Your task to perform on an android device: toggle sleep mode Image 0: 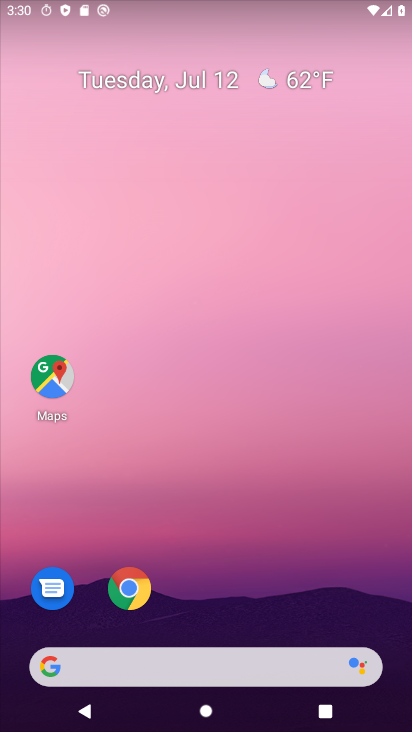
Step 0: drag from (208, 592) to (338, 4)
Your task to perform on an android device: toggle sleep mode Image 1: 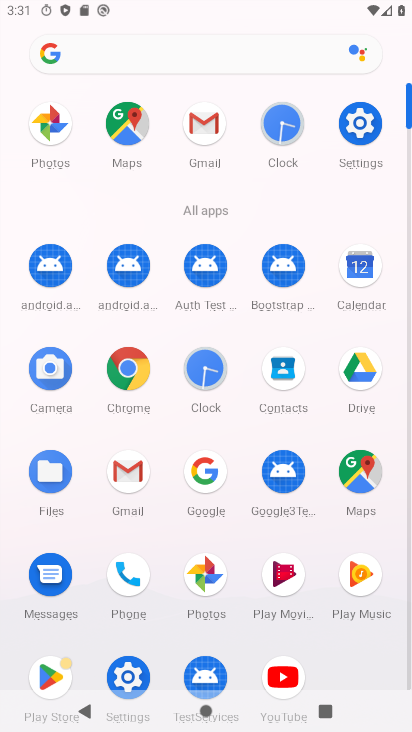
Step 1: click (366, 145)
Your task to perform on an android device: toggle sleep mode Image 2: 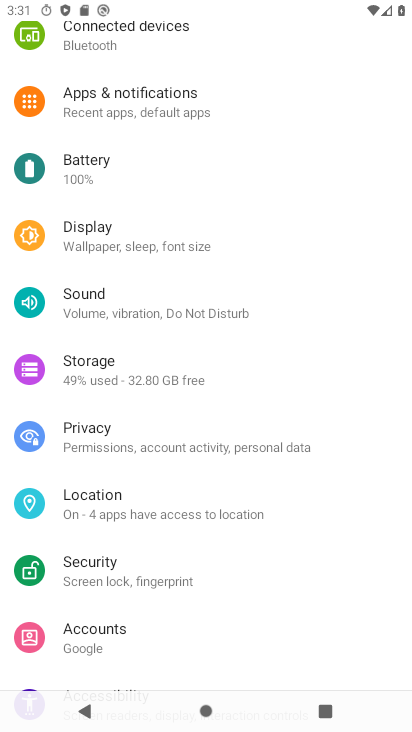
Step 2: drag from (193, 213) to (150, 628)
Your task to perform on an android device: toggle sleep mode Image 3: 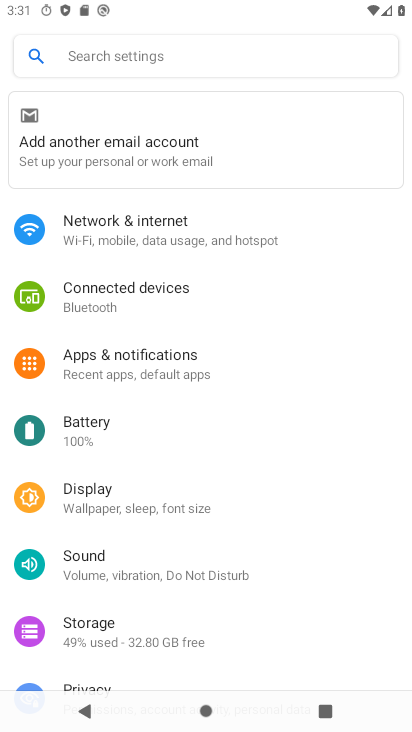
Step 3: click (212, 61)
Your task to perform on an android device: toggle sleep mode Image 4: 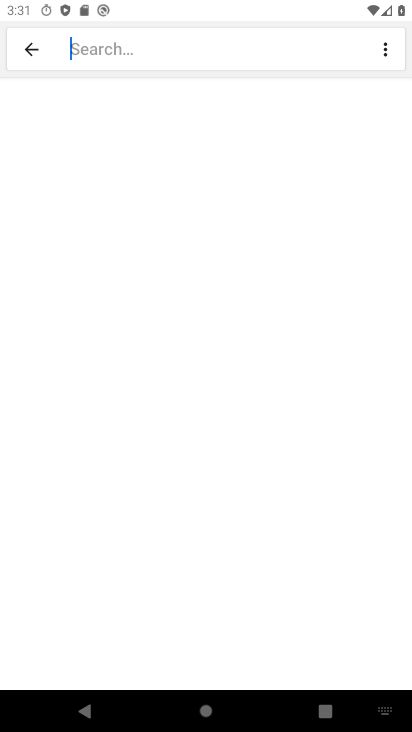
Step 4: type "sleep mode"
Your task to perform on an android device: toggle sleep mode Image 5: 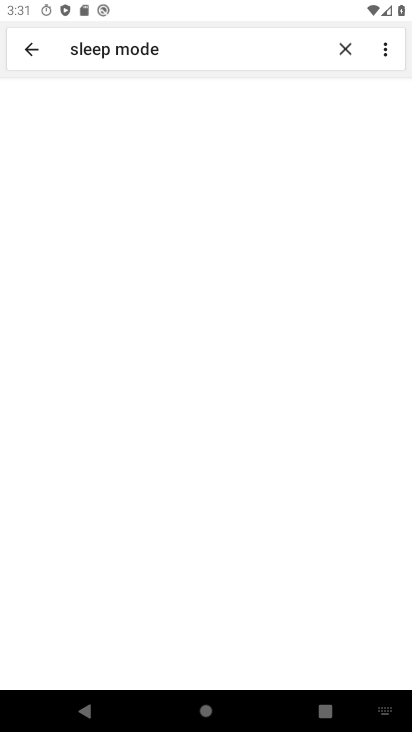
Step 5: task complete